Your task to perform on an android device: turn on priority inbox in the gmail app Image 0: 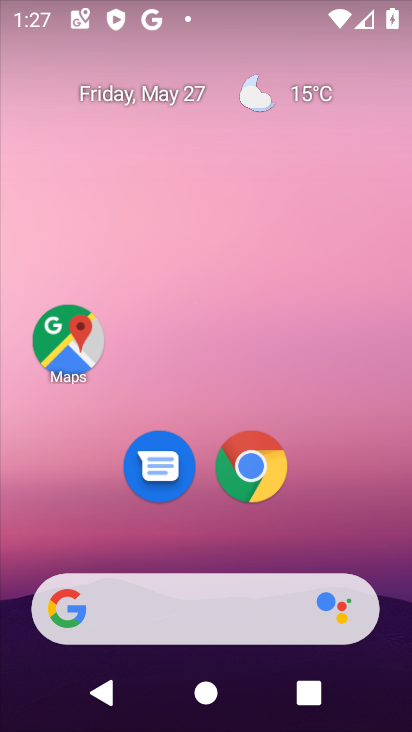
Step 0: drag from (159, 324) to (245, 102)
Your task to perform on an android device: turn on priority inbox in the gmail app Image 1: 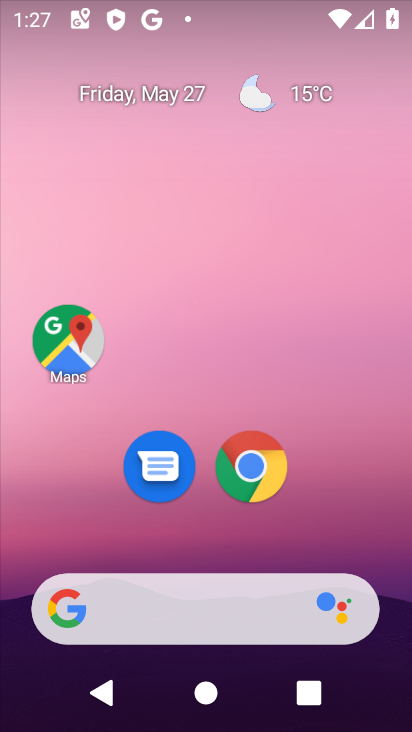
Step 1: drag from (169, 571) to (300, 80)
Your task to perform on an android device: turn on priority inbox in the gmail app Image 2: 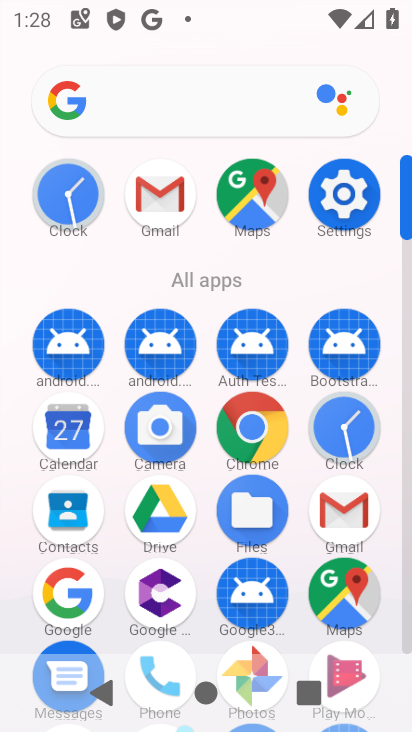
Step 2: click (370, 513)
Your task to perform on an android device: turn on priority inbox in the gmail app Image 3: 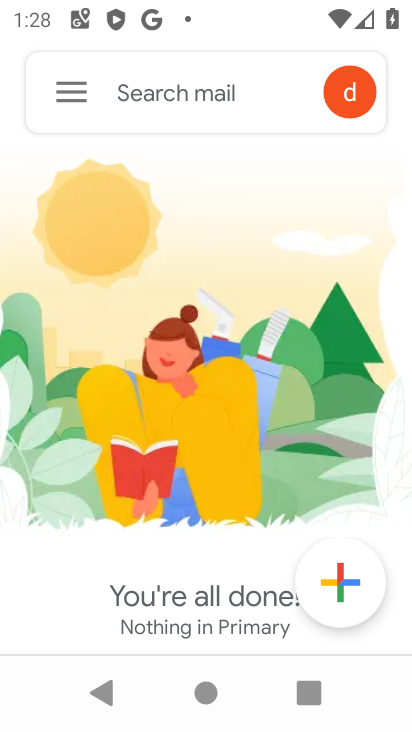
Step 3: click (47, 105)
Your task to perform on an android device: turn on priority inbox in the gmail app Image 4: 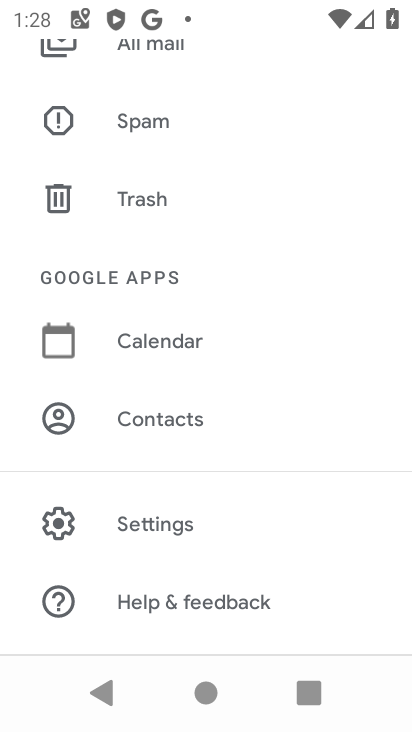
Step 4: click (189, 528)
Your task to perform on an android device: turn on priority inbox in the gmail app Image 5: 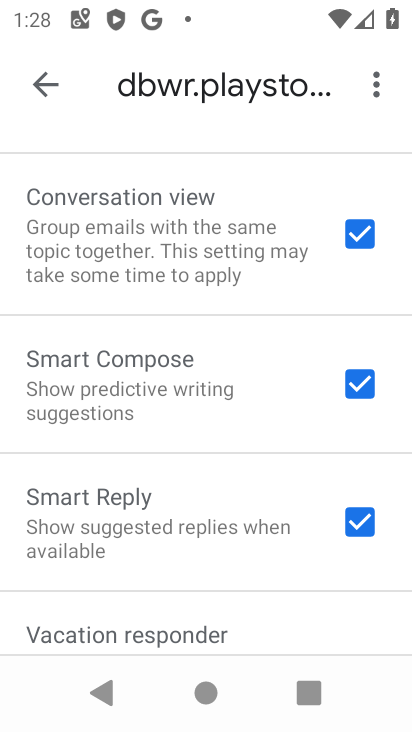
Step 5: drag from (231, 209) to (203, 592)
Your task to perform on an android device: turn on priority inbox in the gmail app Image 6: 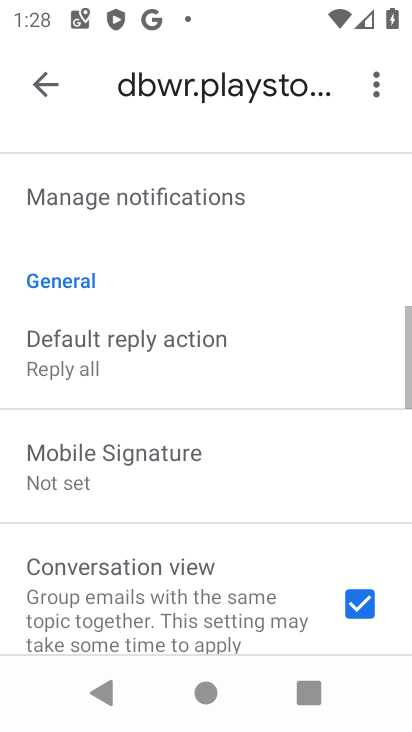
Step 6: drag from (269, 251) to (257, 587)
Your task to perform on an android device: turn on priority inbox in the gmail app Image 7: 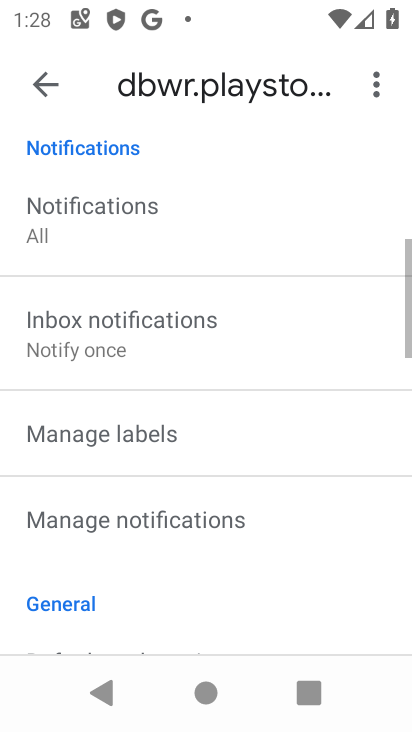
Step 7: drag from (346, 227) to (233, 596)
Your task to perform on an android device: turn on priority inbox in the gmail app Image 8: 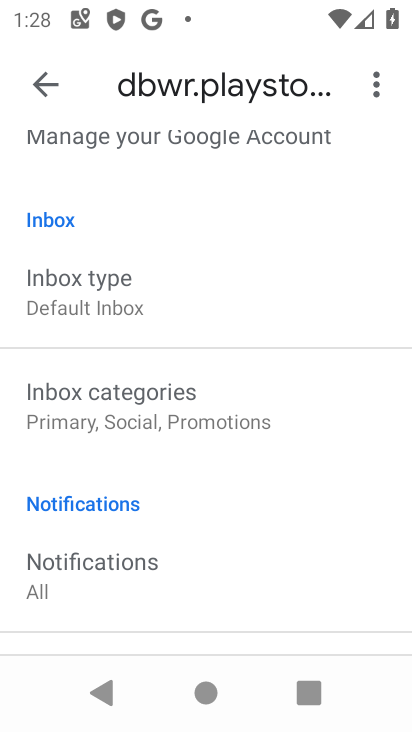
Step 8: click (202, 311)
Your task to perform on an android device: turn on priority inbox in the gmail app Image 9: 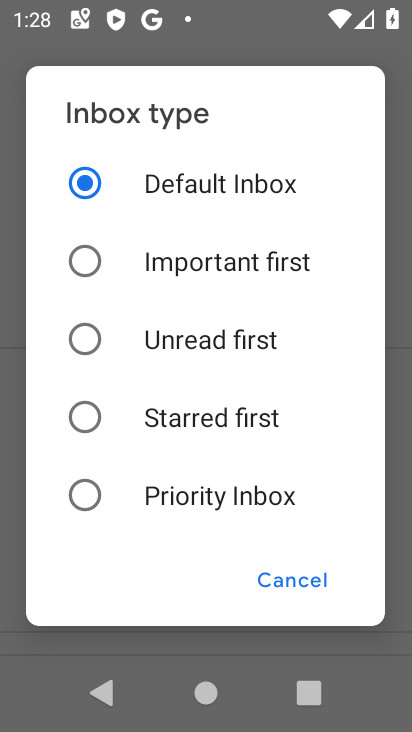
Step 9: click (80, 499)
Your task to perform on an android device: turn on priority inbox in the gmail app Image 10: 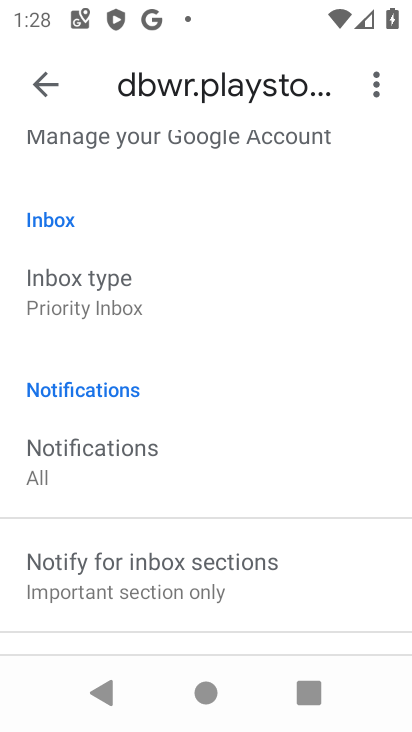
Step 10: task complete